Your task to perform on an android device: Open Google Maps and go to "Timeline" Image 0: 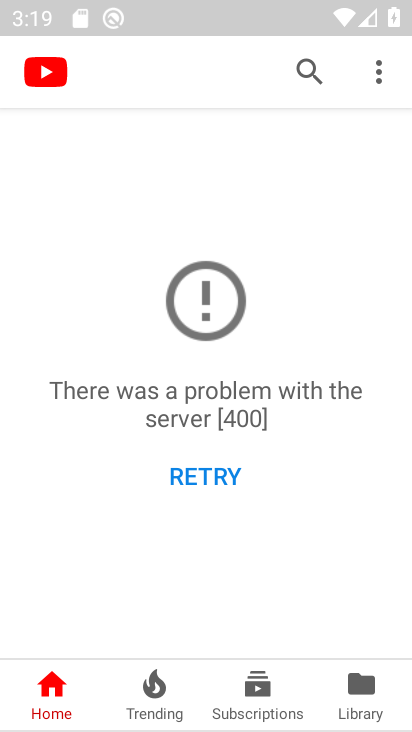
Step 0: press back button
Your task to perform on an android device: Open Google Maps and go to "Timeline" Image 1: 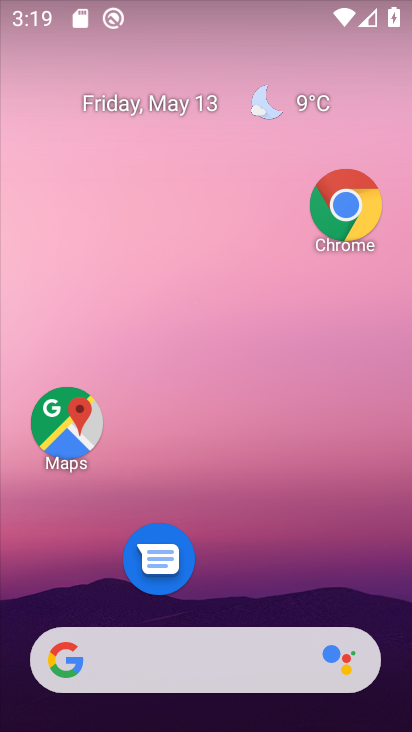
Step 1: click (62, 414)
Your task to perform on an android device: Open Google Maps and go to "Timeline" Image 2: 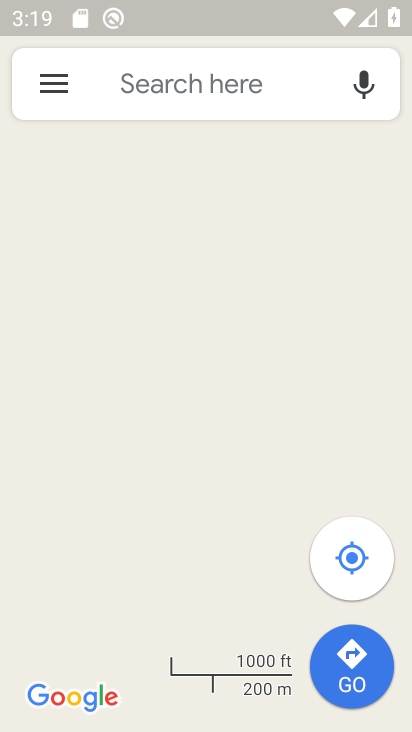
Step 2: click (54, 82)
Your task to perform on an android device: Open Google Maps and go to "Timeline" Image 3: 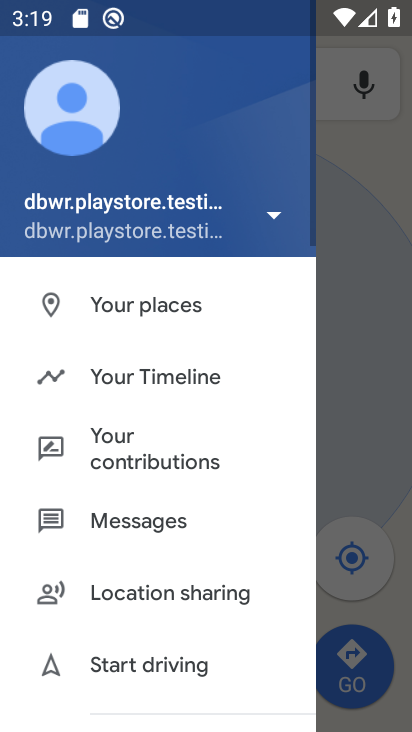
Step 3: click (131, 385)
Your task to perform on an android device: Open Google Maps and go to "Timeline" Image 4: 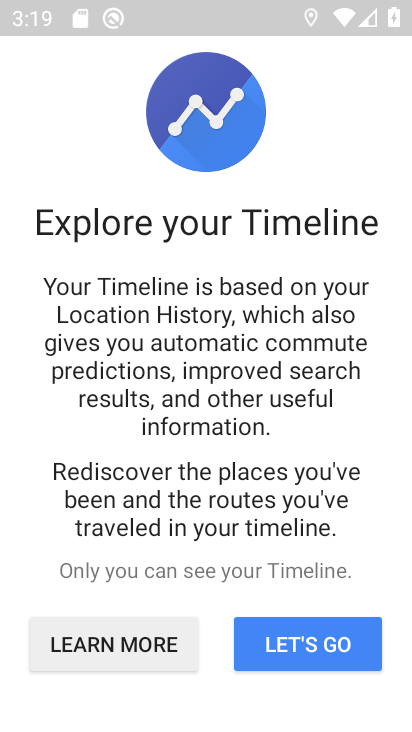
Step 4: task complete